Your task to perform on an android device: Clear the cart on costco. Search for usb-c to usb-a on costco, select the first entry, add it to the cart, then select checkout. Image 0: 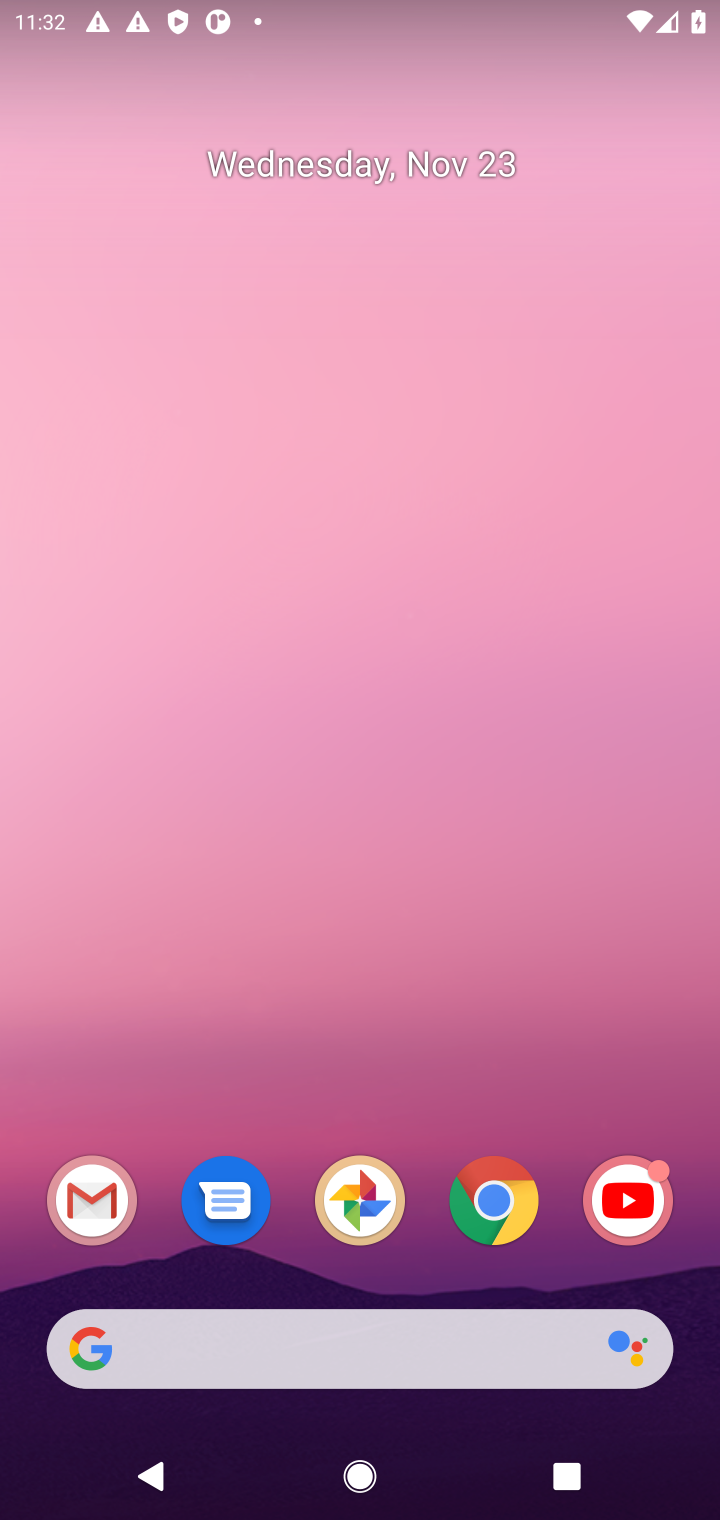
Step 0: click (414, 1367)
Your task to perform on an android device: Clear the cart on costco. Search for usb-c to usb-a on costco, select the first entry, add it to the cart, then select checkout. Image 1: 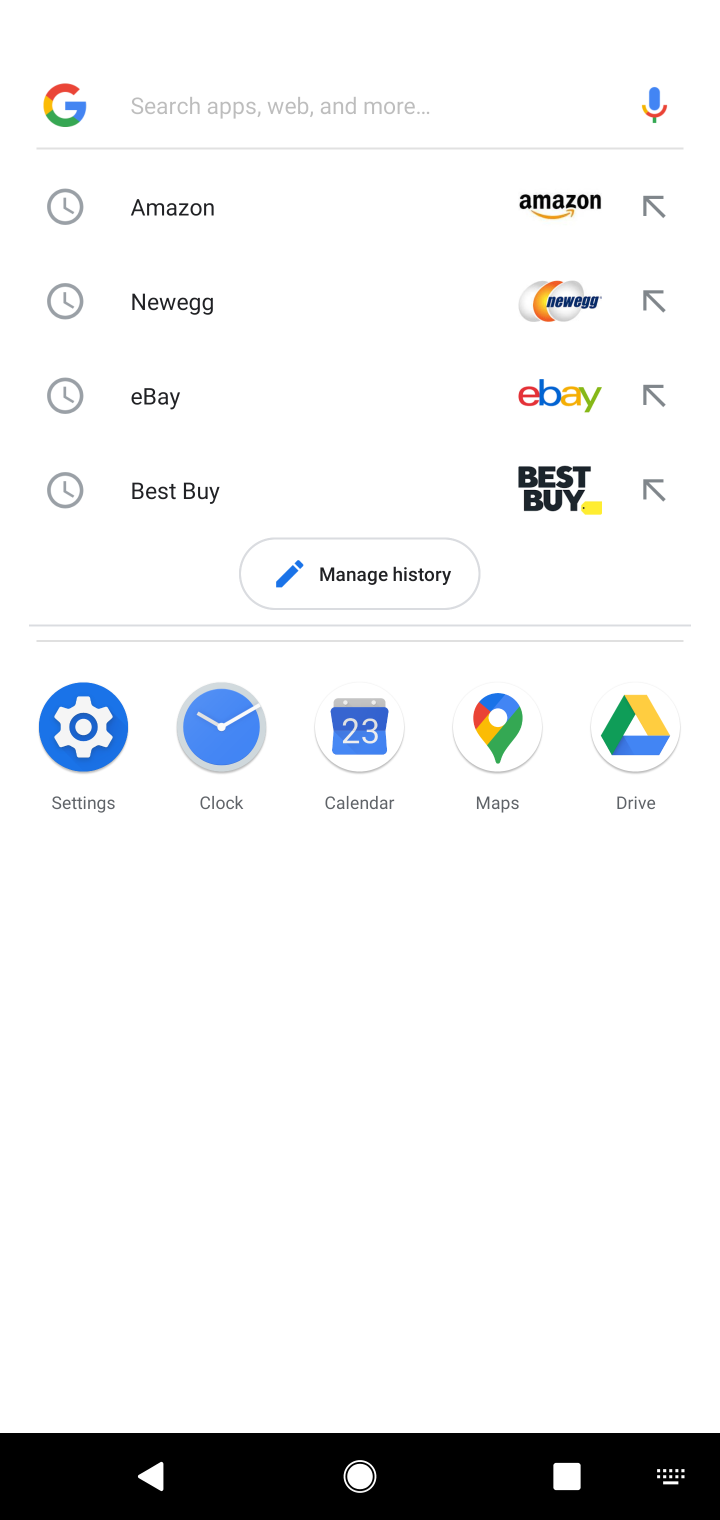
Step 1: type "costco"
Your task to perform on an android device: Clear the cart on costco. Search for usb-c to usb-a on costco, select the first entry, add it to the cart, then select checkout. Image 2: 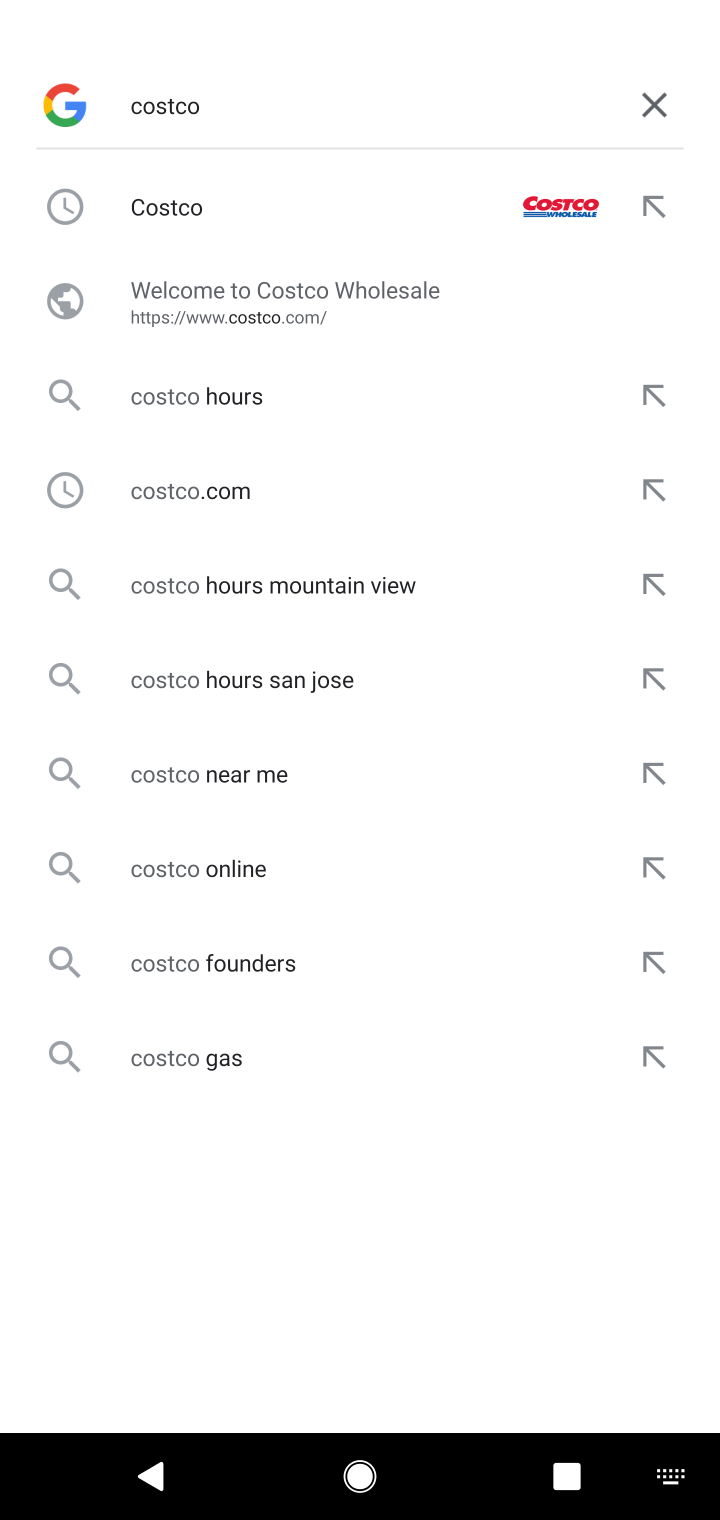
Step 2: click (339, 197)
Your task to perform on an android device: Clear the cart on costco. Search for usb-c to usb-a on costco, select the first entry, add it to the cart, then select checkout. Image 3: 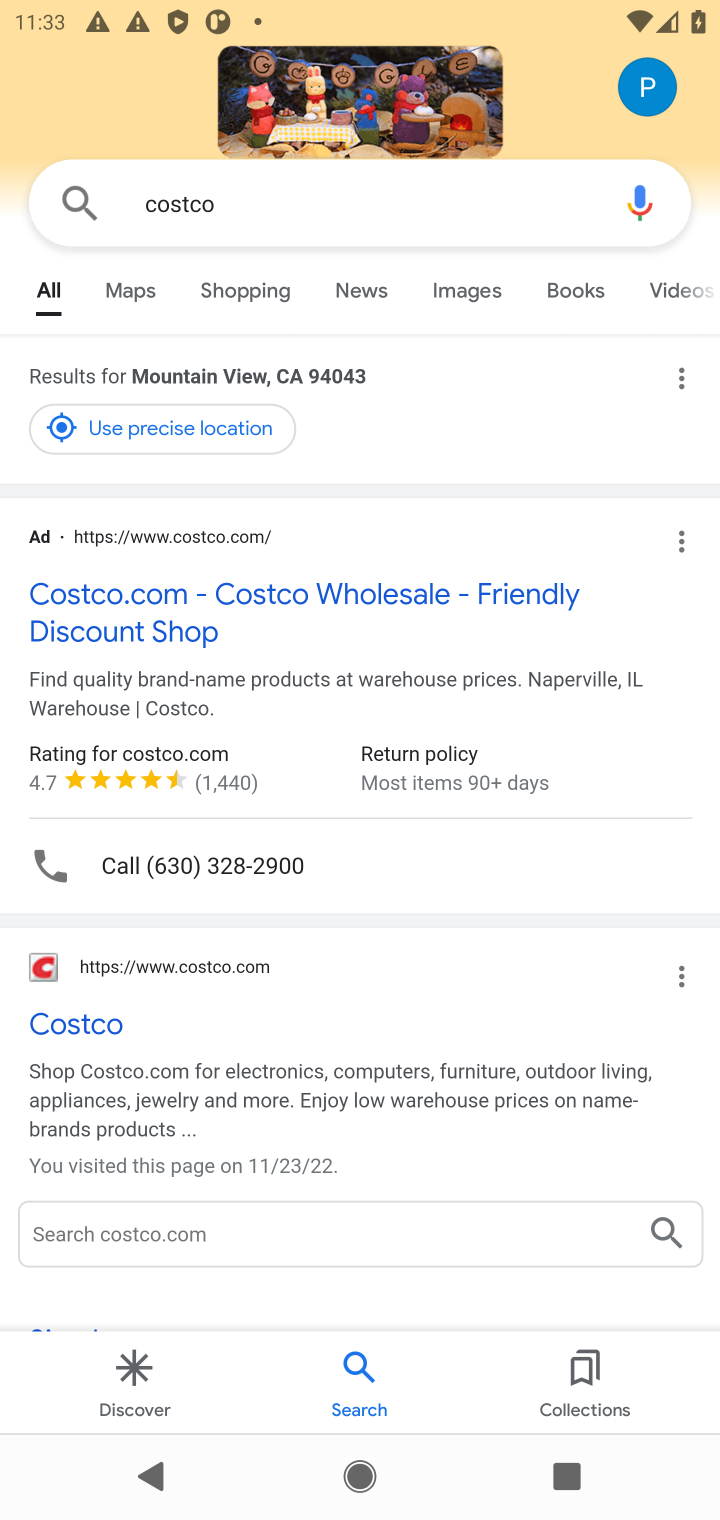
Step 3: click (157, 594)
Your task to perform on an android device: Clear the cart on costco. Search for usb-c to usb-a on costco, select the first entry, add it to the cart, then select checkout. Image 4: 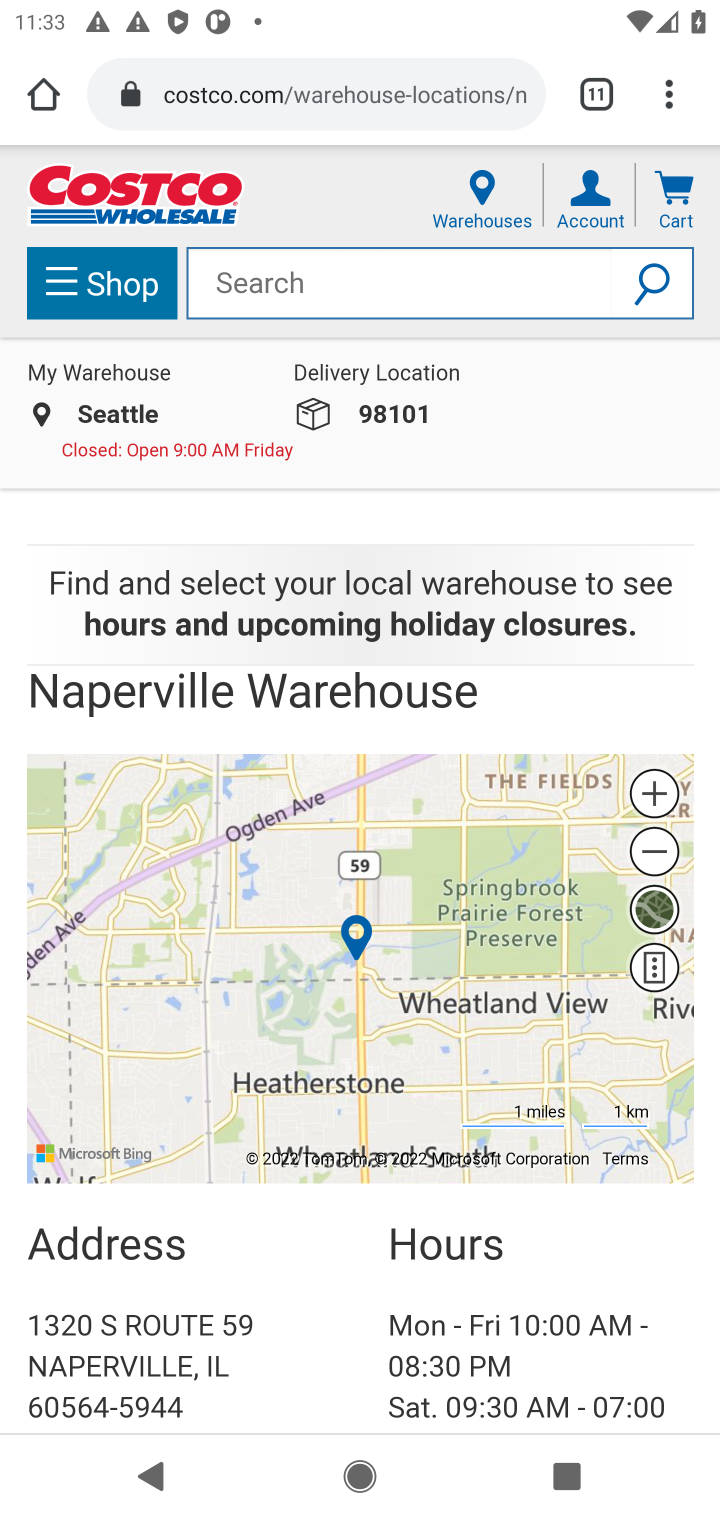
Step 4: click (411, 285)
Your task to perform on an android device: Clear the cart on costco. Search for usb-c to usb-a on costco, select the first entry, add it to the cart, then select checkout. Image 5: 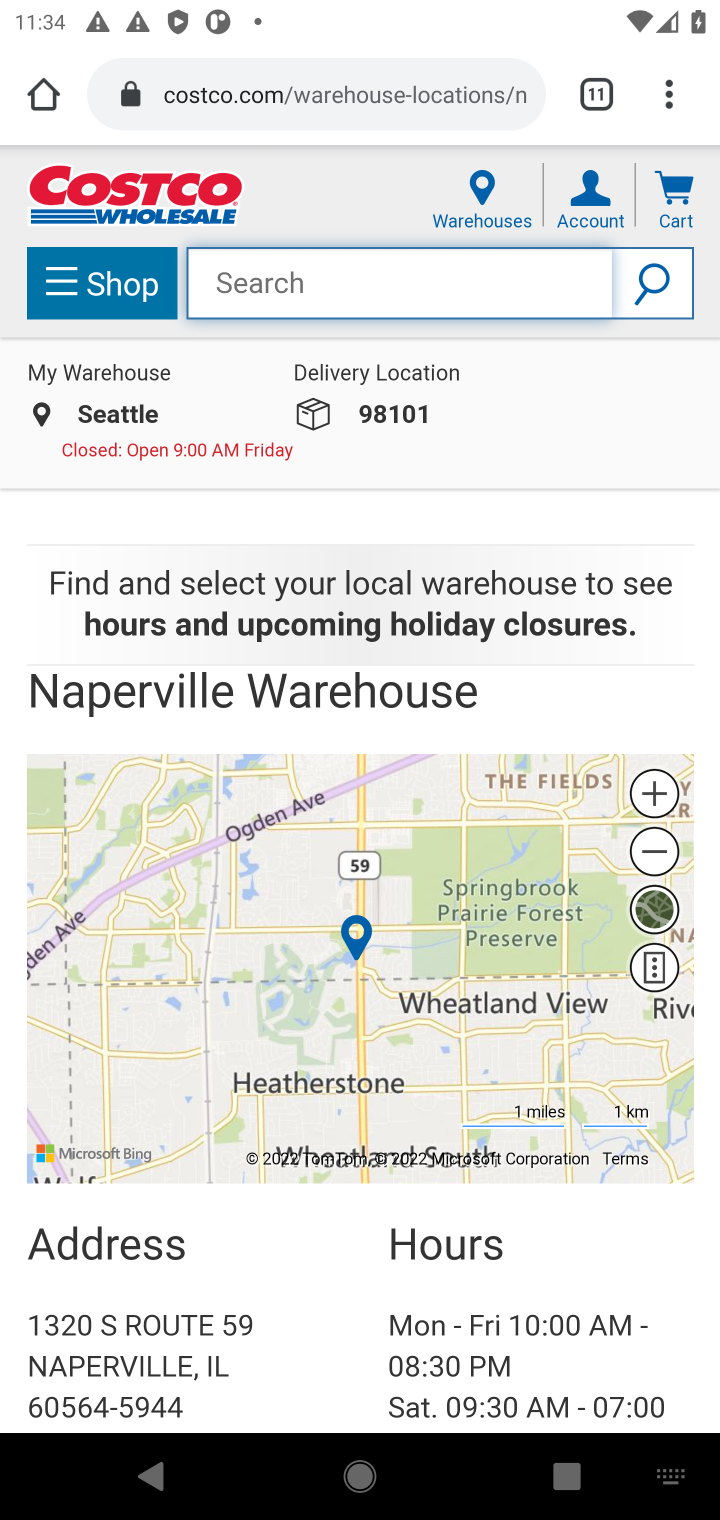
Step 5: type "usb-c to usb-a"
Your task to perform on an android device: Clear the cart on costco. Search for usb-c to usb-a on costco, select the first entry, add it to the cart, then select checkout. Image 6: 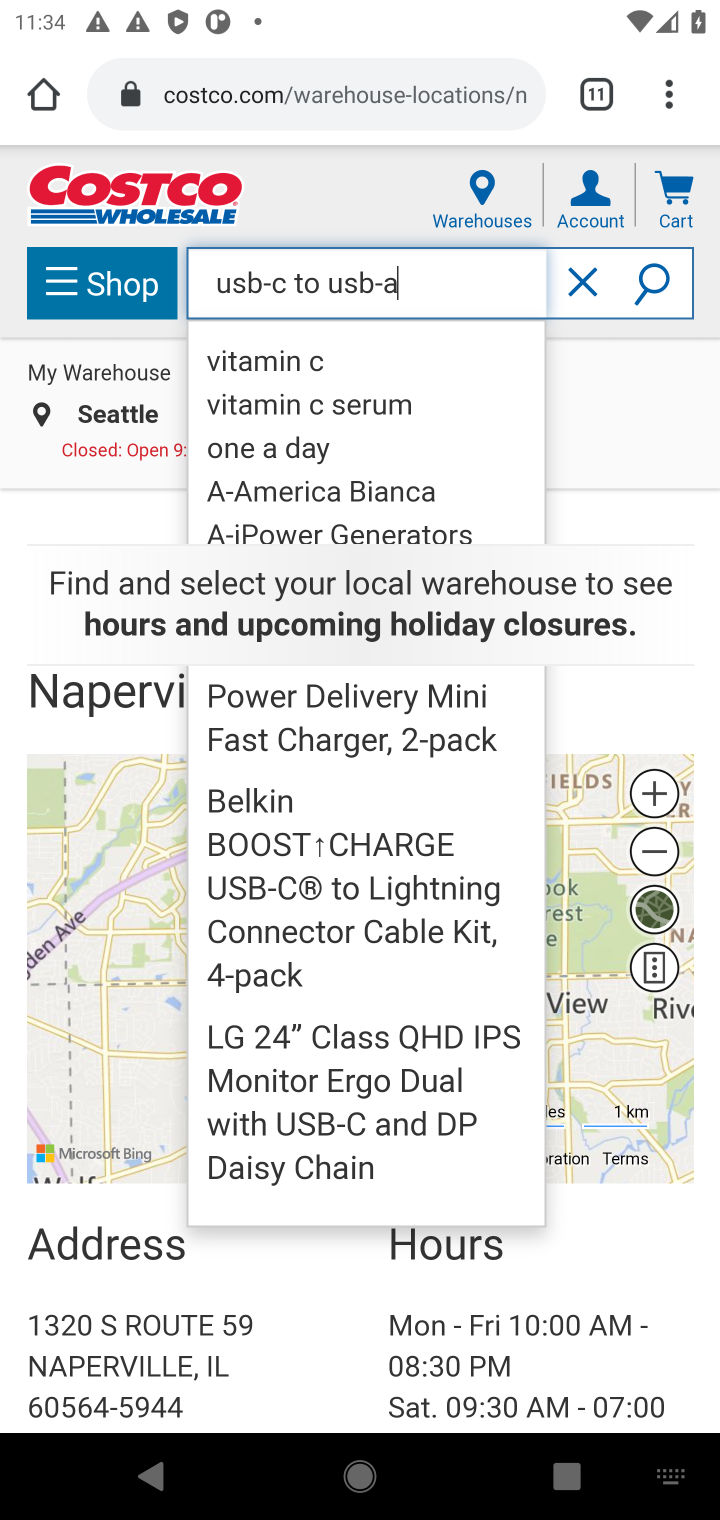
Step 6: click (656, 320)
Your task to perform on an android device: Clear the cart on costco. Search for usb-c to usb-a on costco, select the first entry, add it to the cart, then select checkout. Image 7: 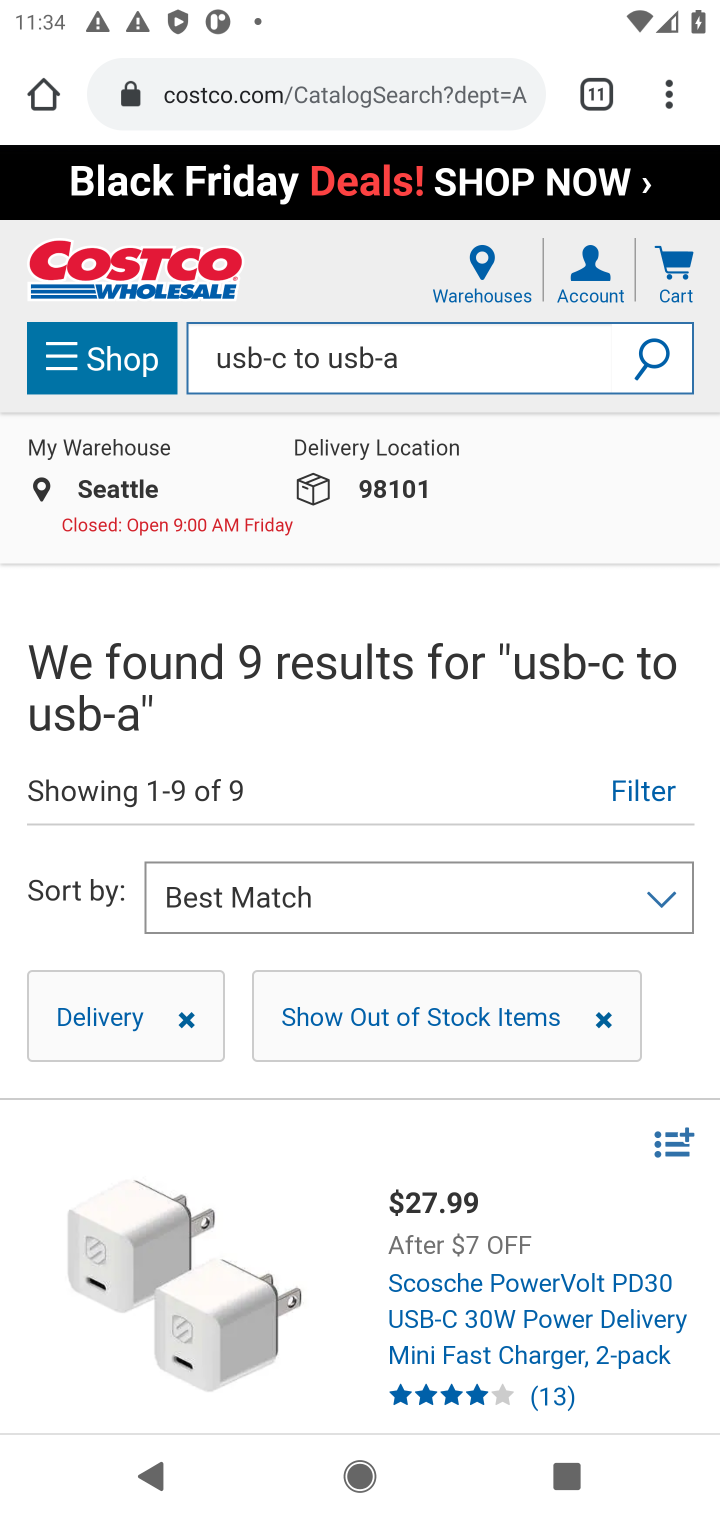
Step 7: task complete